Your task to perform on an android device: Open Google Image 0: 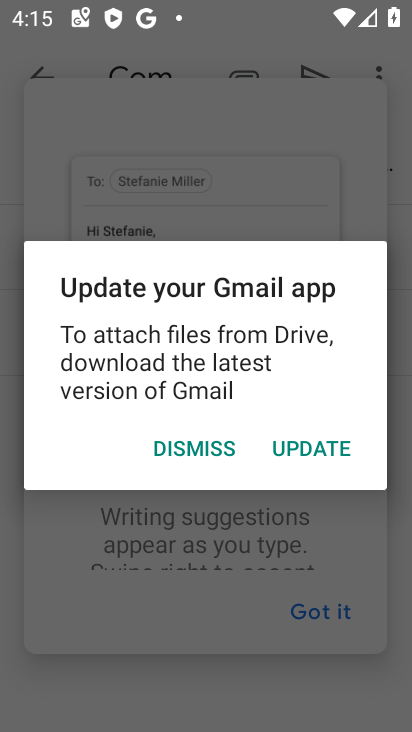
Step 0: press back button
Your task to perform on an android device: Open Google Image 1: 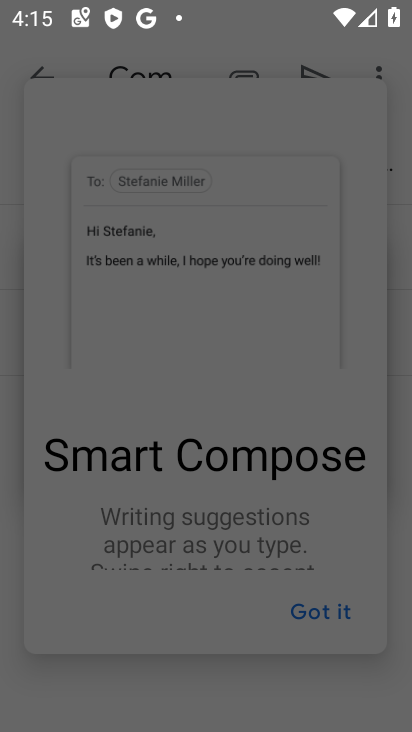
Step 1: press back button
Your task to perform on an android device: Open Google Image 2: 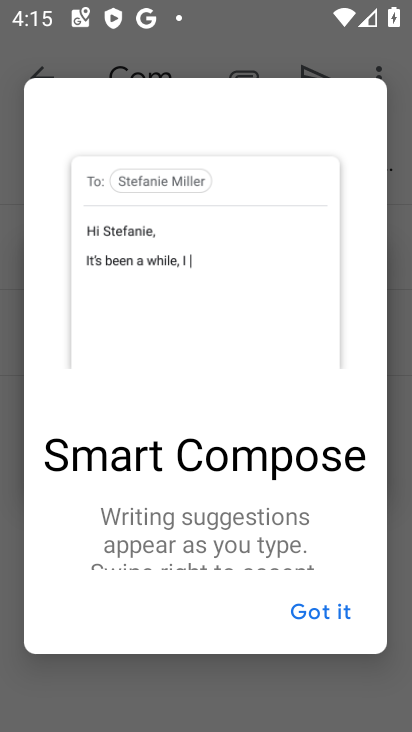
Step 2: click (321, 599)
Your task to perform on an android device: Open Google Image 3: 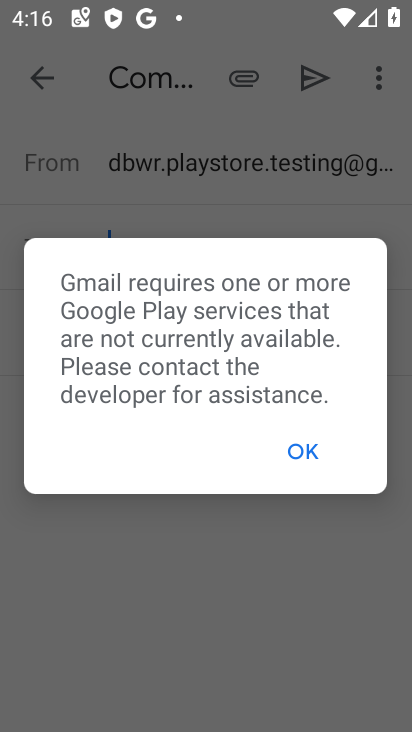
Step 3: click (306, 454)
Your task to perform on an android device: Open Google Image 4: 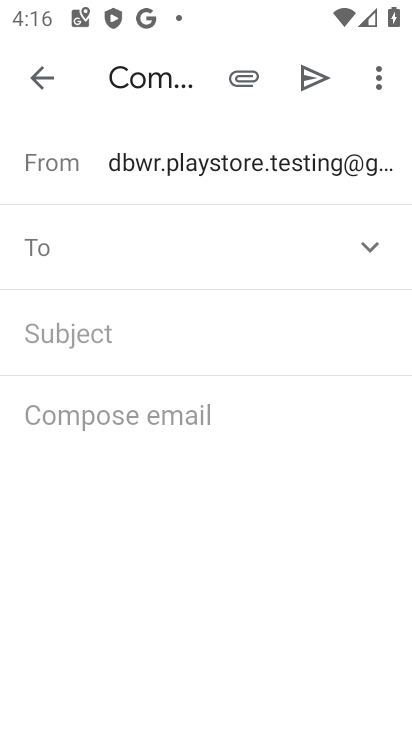
Step 4: press home button
Your task to perform on an android device: Open Google Image 5: 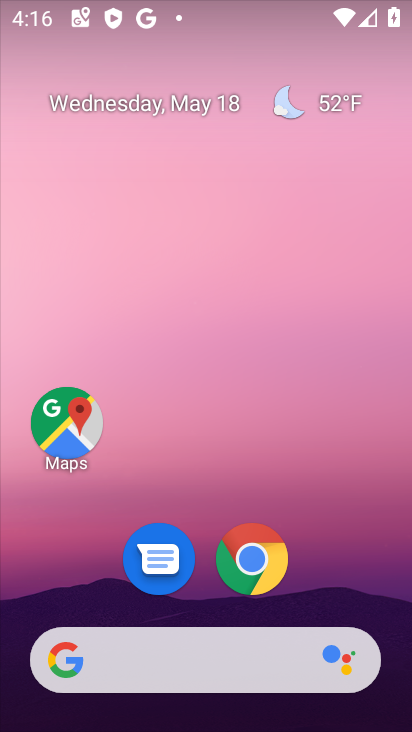
Step 5: drag from (240, 630) to (327, 77)
Your task to perform on an android device: Open Google Image 6: 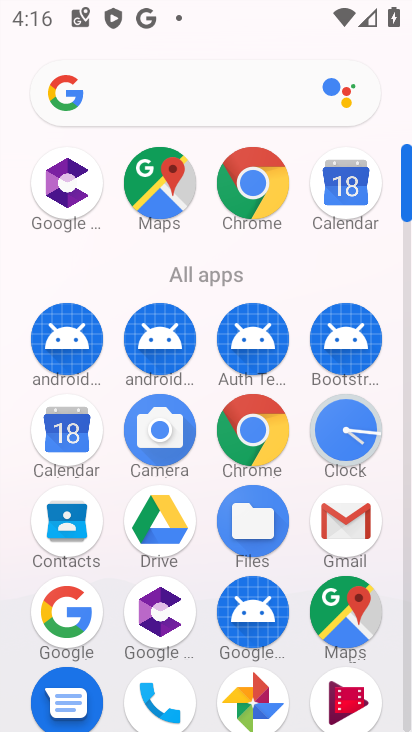
Step 6: click (61, 625)
Your task to perform on an android device: Open Google Image 7: 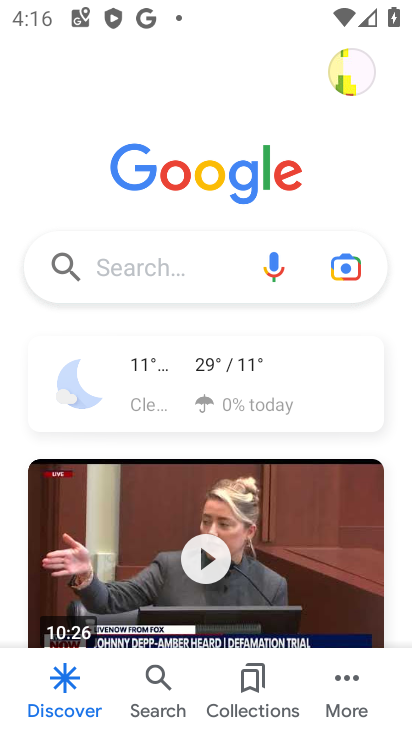
Step 7: task complete